Your task to perform on an android device: When is my next appointment? Image 0: 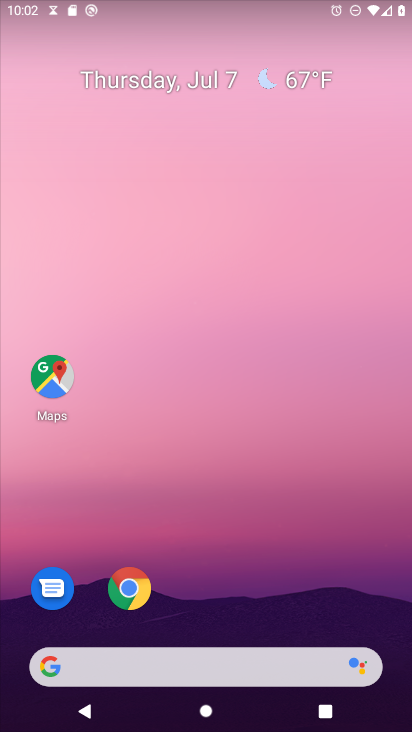
Step 0: drag from (241, 598) to (249, 156)
Your task to perform on an android device: When is my next appointment? Image 1: 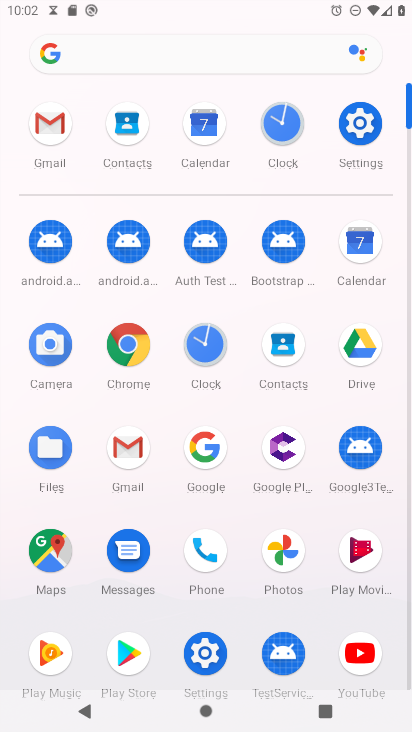
Step 1: click (362, 239)
Your task to perform on an android device: When is my next appointment? Image 2: 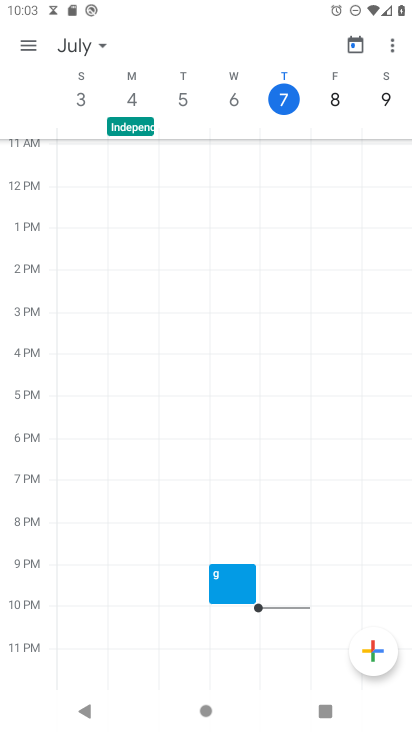
Step 2: click (357, 45)
Your task to perform on an android device: When is my next appointment? Image 3: 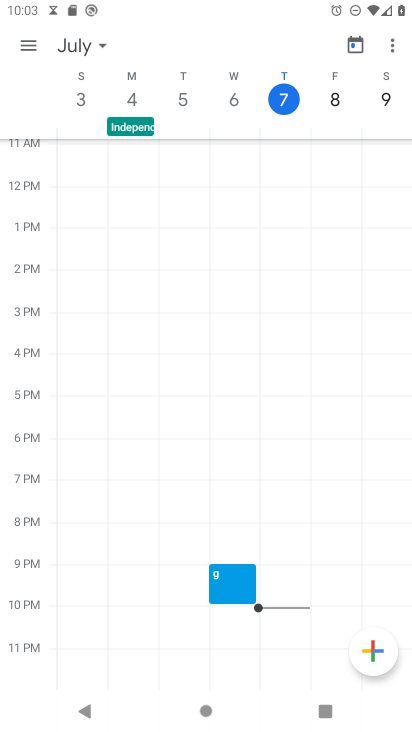
Step 3: click (361, 46)
Your task to perform on an android device: When is my next appointment? Image 4: 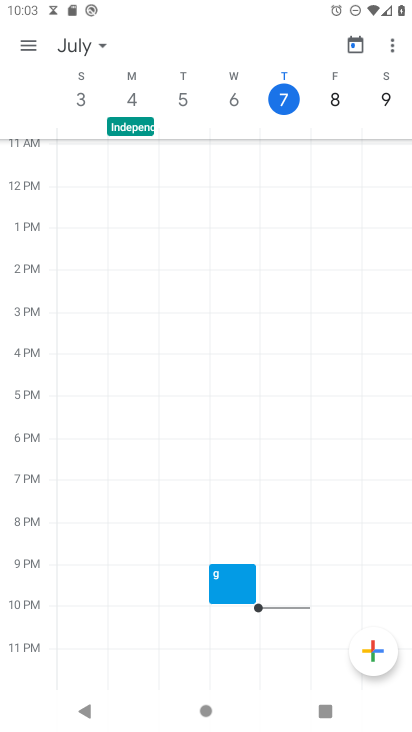
Step 4: click (104, 43)
Your task to perform on an android device: When is my next appointment? Image 5: 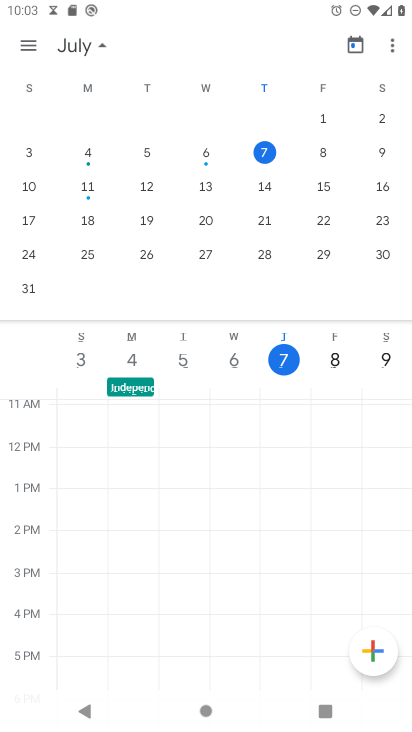
Step 5: click (83, 187)
Your task to perform on an android device: When is my next appointment? Image 6: 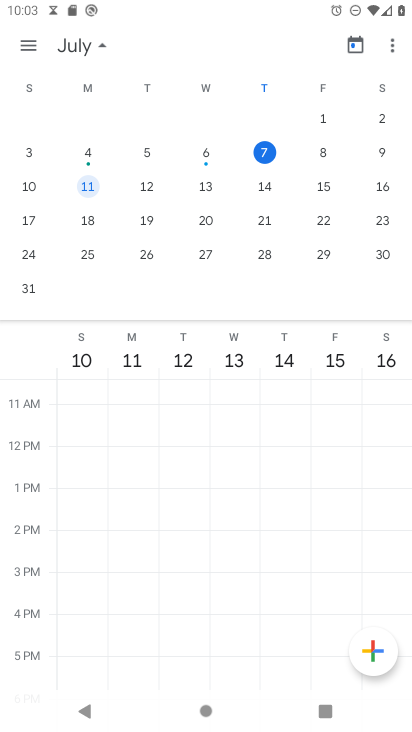
Step 6: click (26, 57)
Your task to perform on an android device: When is my next appointment? Image 7: 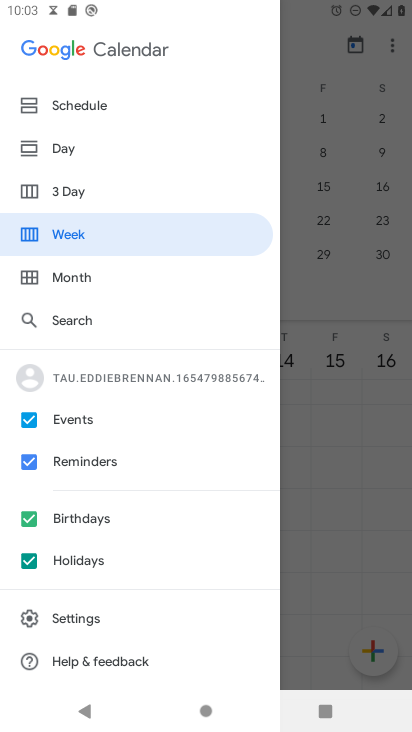
Step 7: click (88, 107)
Your task to perform on an android device: When is my next appointment? Image 8: 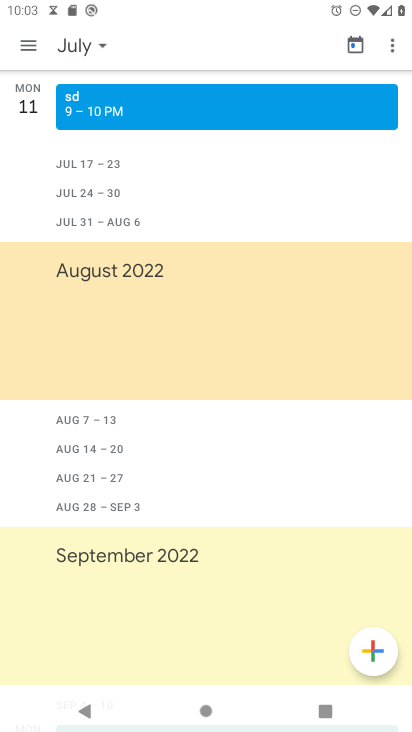
Step 8: task complete